Your task to perform on an android device: Go to battery settings Image 0: 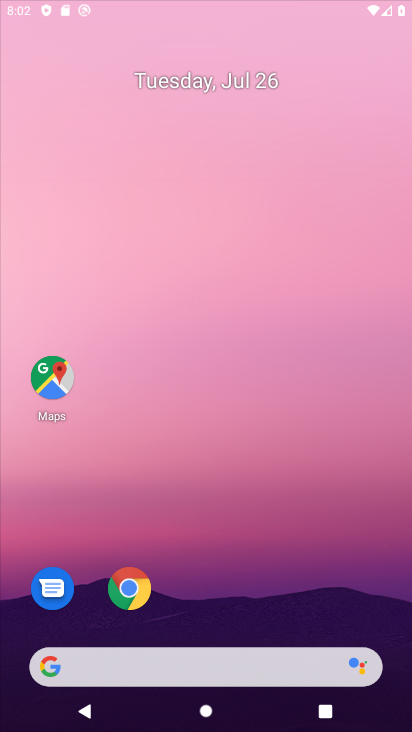
Step 0: click (251, 51)
Your task to perform on an android device: Go to battery settings Image 1: 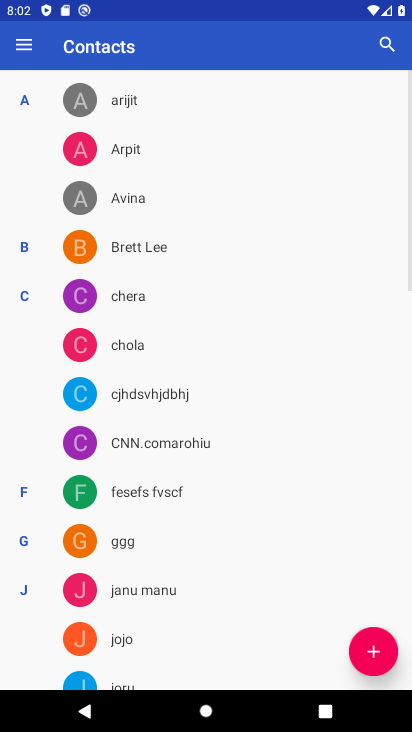
Step 1: press home button
Your task to perform on an android device: Go to battery settings Image 2: 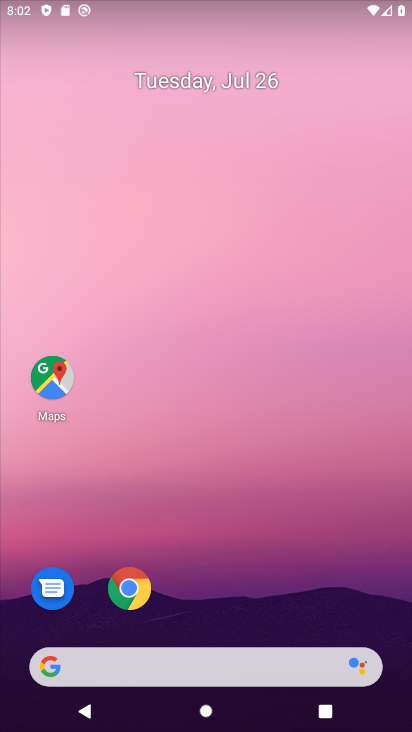
Step 2: drag from (285, 579) to (269, 114)
Your task to perform on an android device: Go to battery settings Image 3: 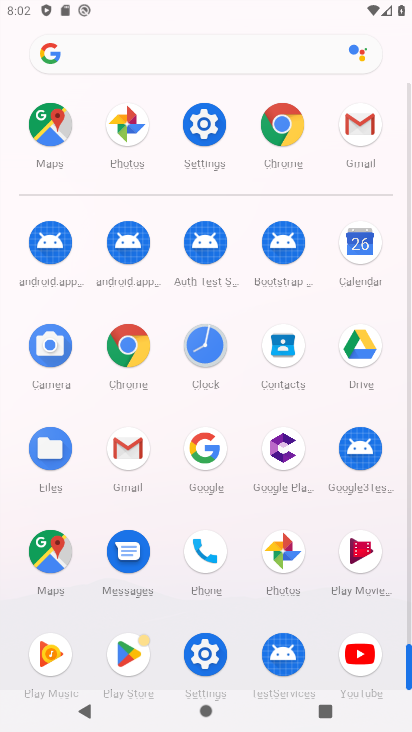
Step 3: click (208, 119)
Your task to perform on an android device: Go to battery settings Image 4: 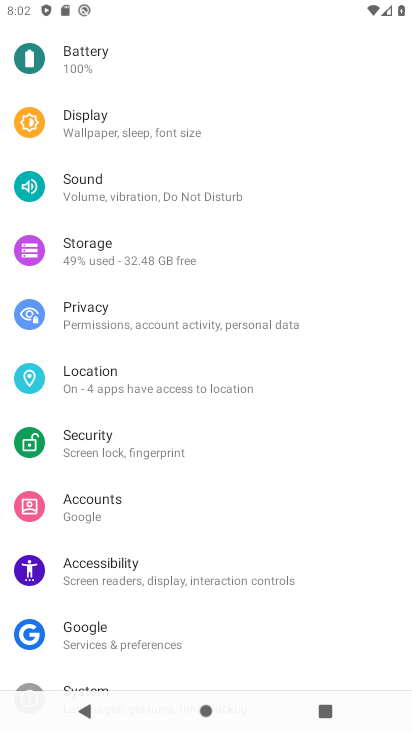
Step 4: drag from (175, 177) to (172, 492)
Your task to perform on an android device: Go to battery settings Image 5: 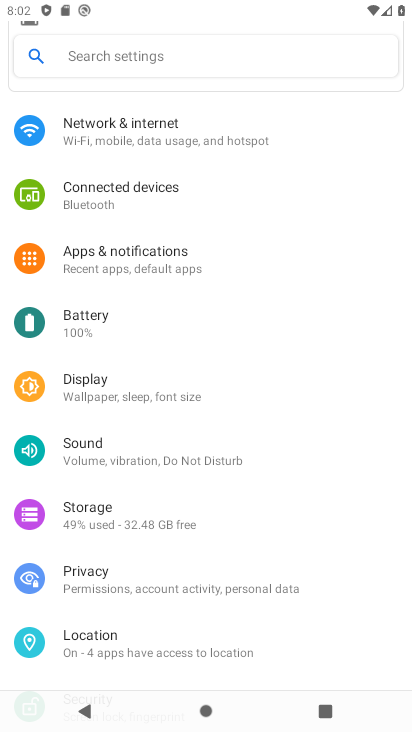
Step 5: click (71, 332)
Your task to perform on an android device: Go to battery settings Image 6: 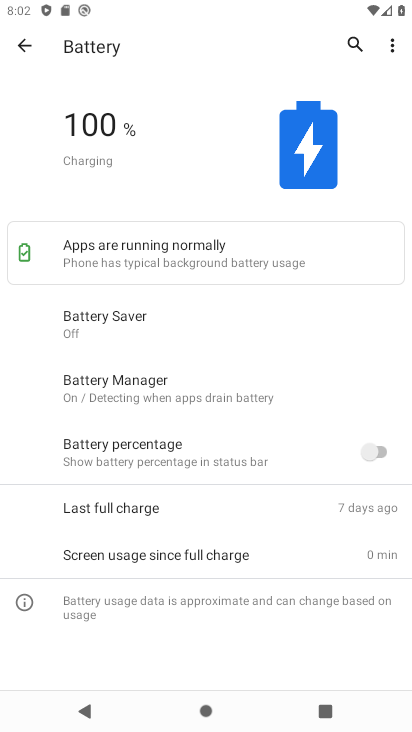
Step 6: task complete